Your task to perform on an android device: uninstall "Google Pay: Save, Pay, Manage" Image 0: 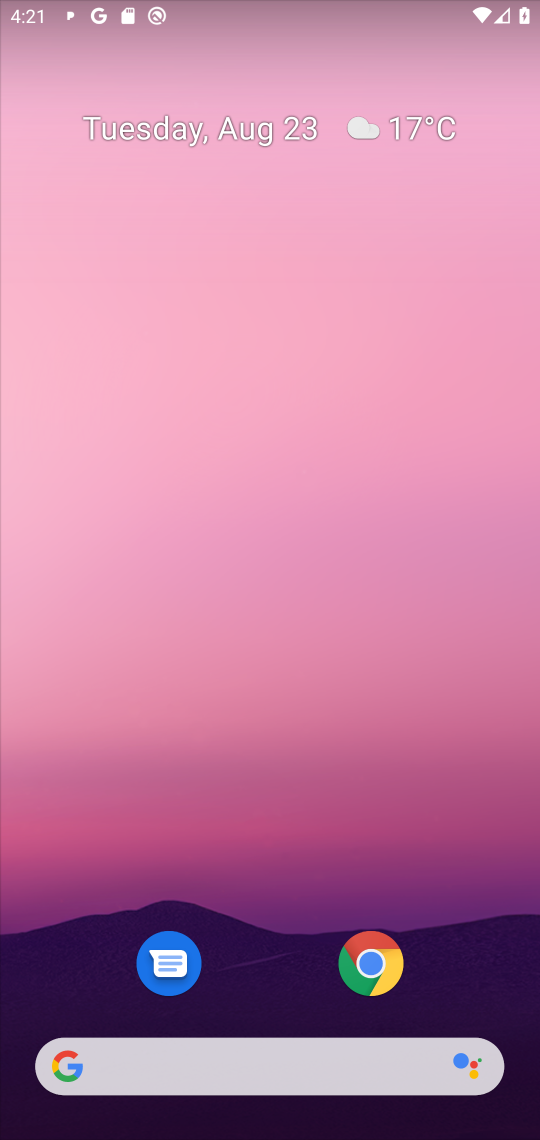
Step 0: press home button
Your task to perform on an android device: uninstall "Google Pay: Save, Pay, Manage" Image 1: 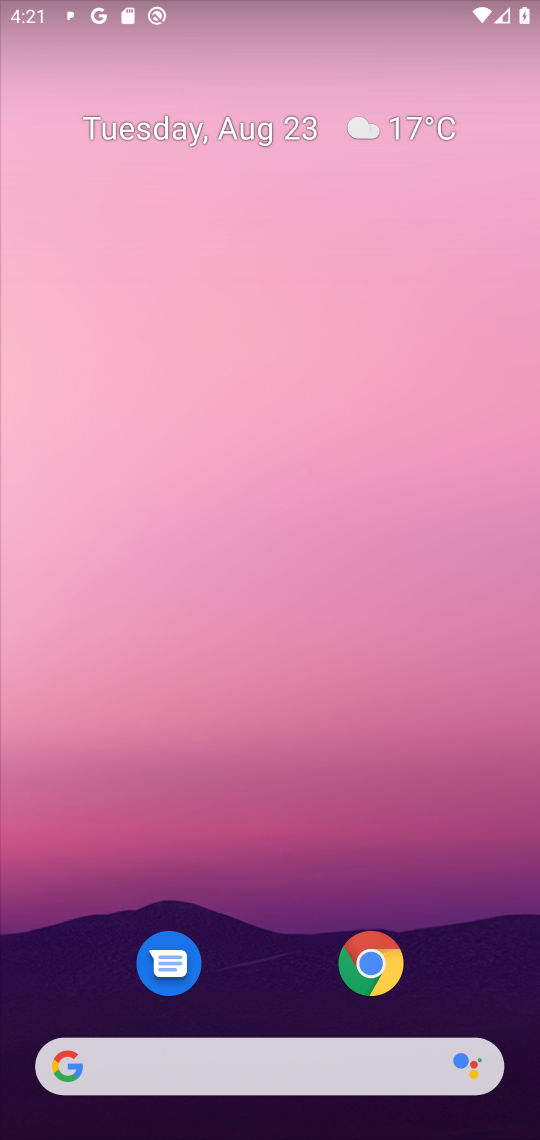
Step 1: drag from (267, 1000) to (220, 19)
Your task to perform on an android device: uninstall "Google Pay: Save, Pay, Manage" Image 2: 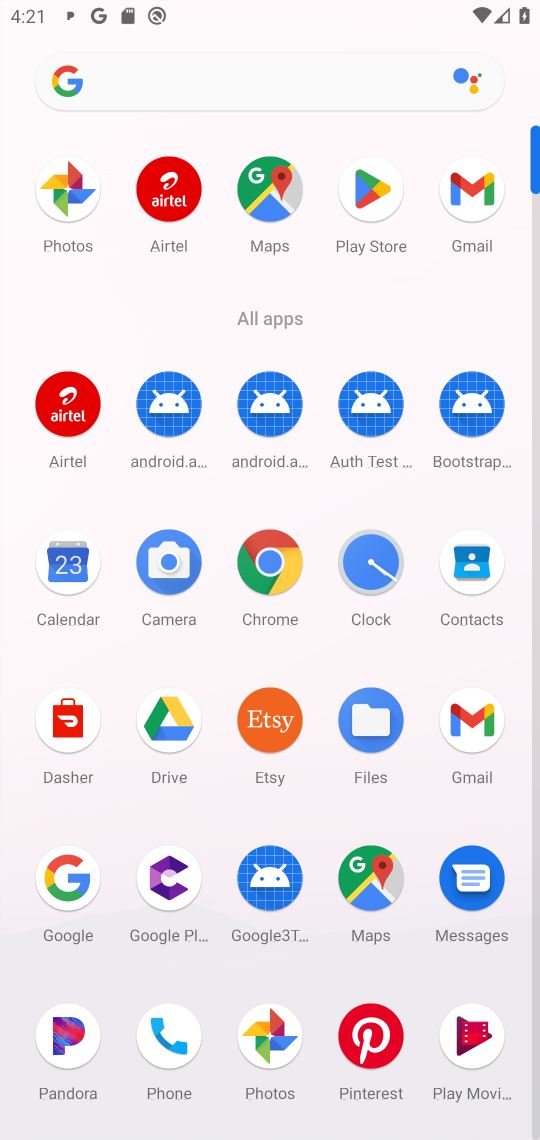
Step 2: click (368, 181)
Your task to perform on an android device: uninstall "Google Pay: Save, Pay, Manage" Image 3: 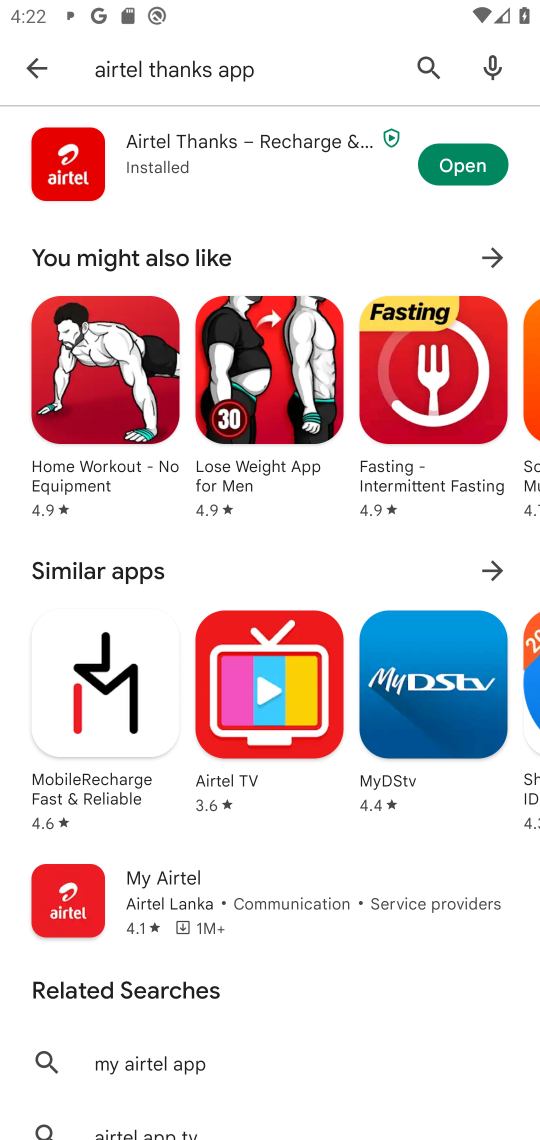
Step 3: click (414, 60)
Your task to perform on an android device: uninstall "Google Pay: Save, Pay, Manage" Image 4: 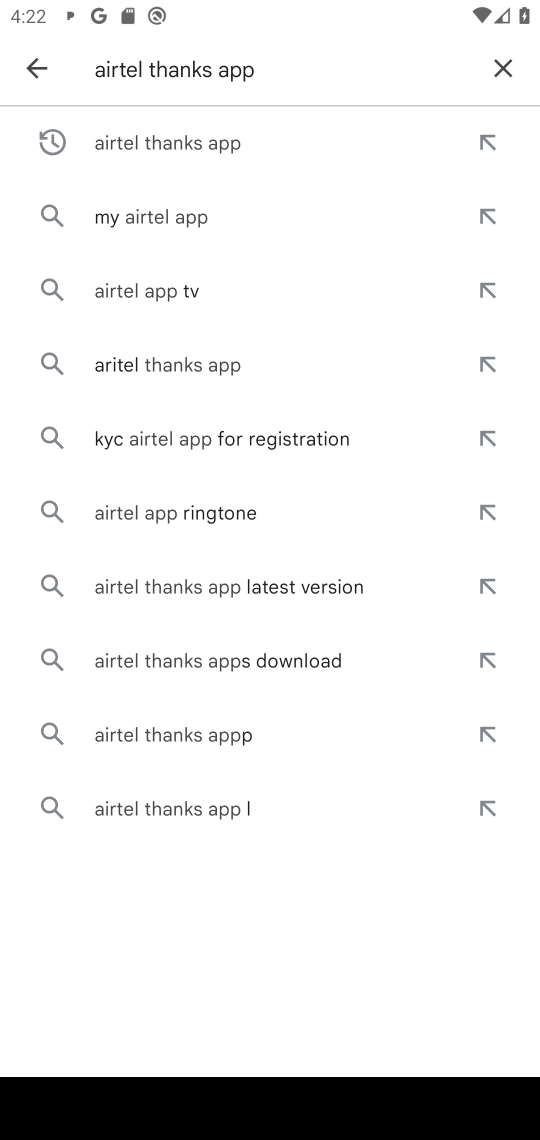
Step 4: click (508, 60)
Your task to perform on an android device: uninstall "Google Pay: Save, Pay, Manage" Image 5: 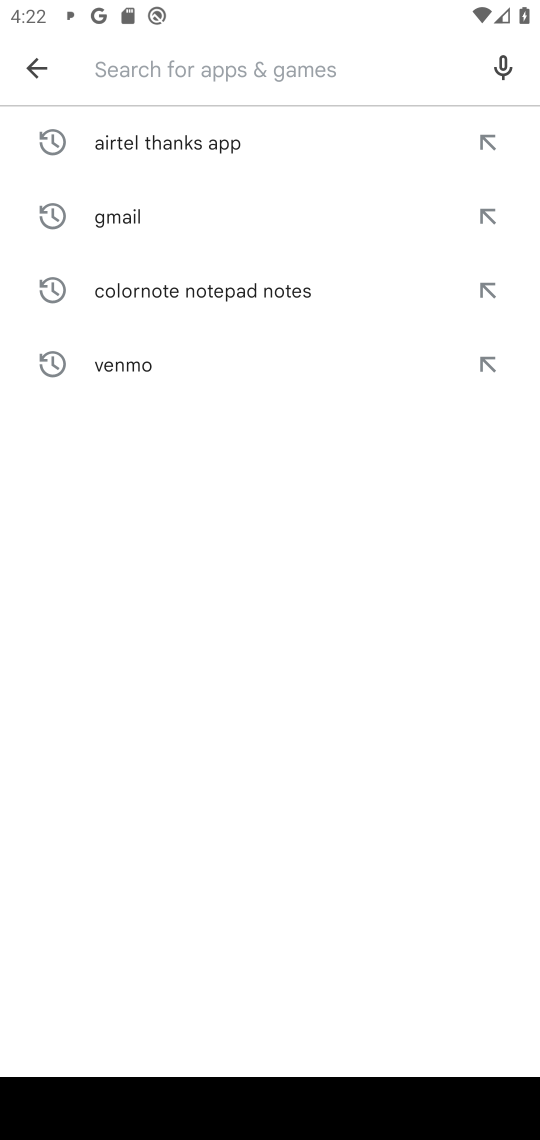
Step 5: type "Google Pay: Save, Pay, Manage"
Your task to perform on an android device: uninstall "Google Pay: Save, Pay, Manage" Image 6: 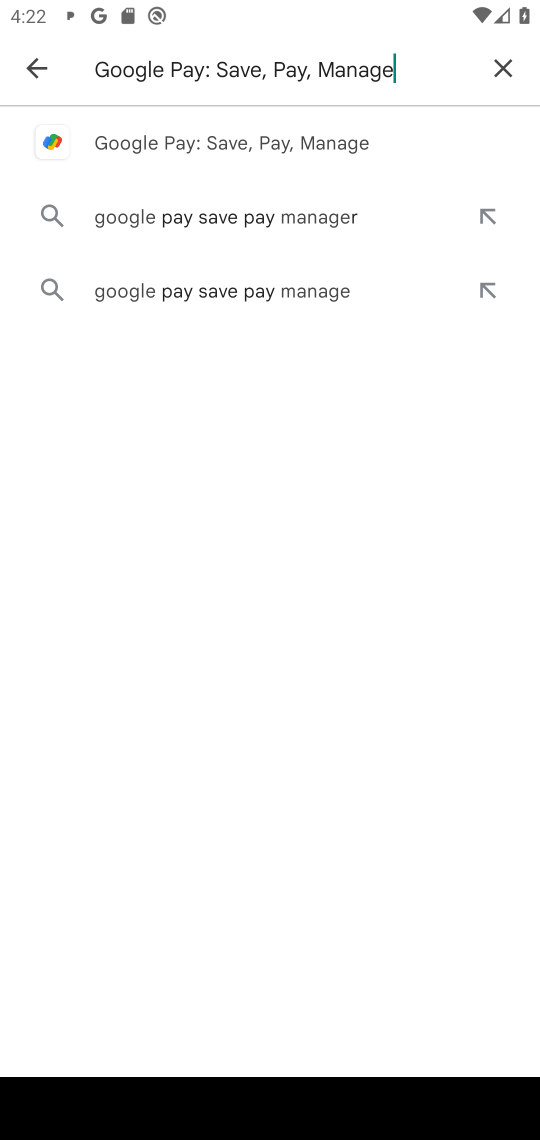
Step 6: click (224, 128)
Your task to perform on an android device: uninstall "Google Pay: Save, Pay, Manage" Image 7: 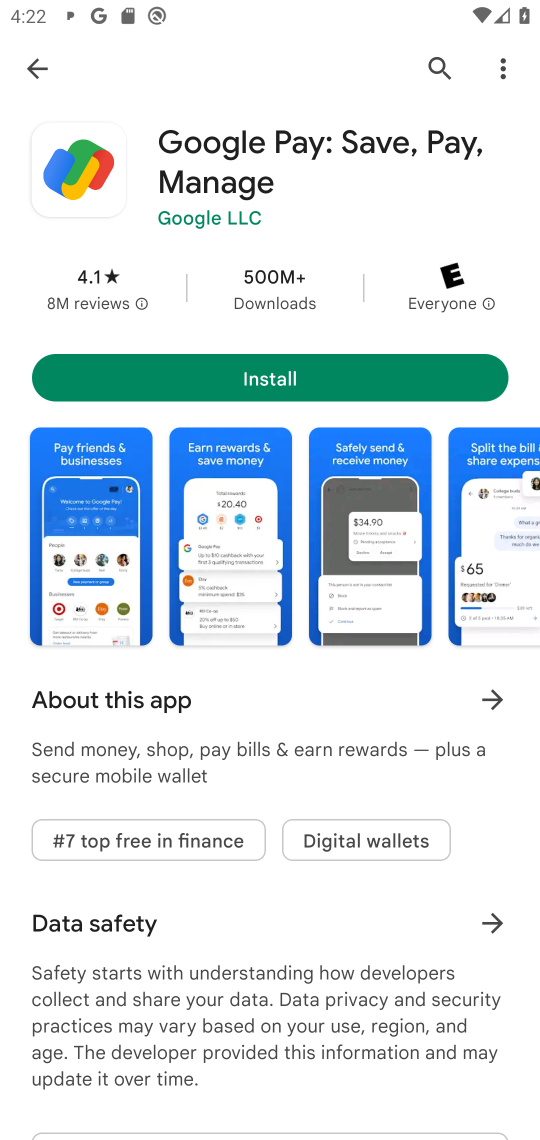
Step 7: task complete